Your task to perform on an android device: Go to location settings Image 0: 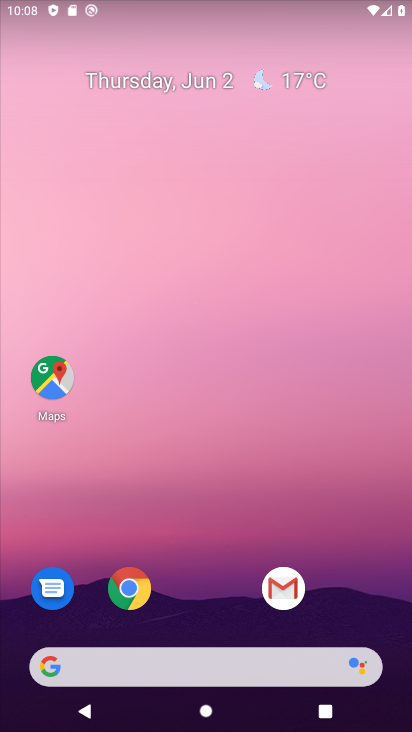
Step 0: drag from (292, 644) to (352, 132)
Your task to perform on an android device: Go to location settings Image 1: 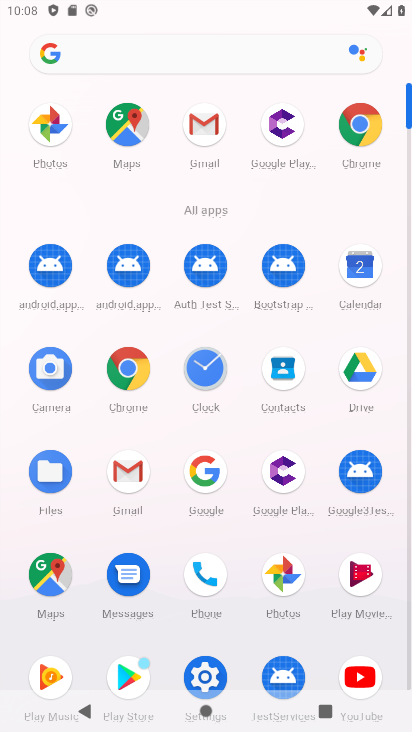
Step 1: click (198, 150)
Your task to perform on an android device: Go to location settings Image 2: 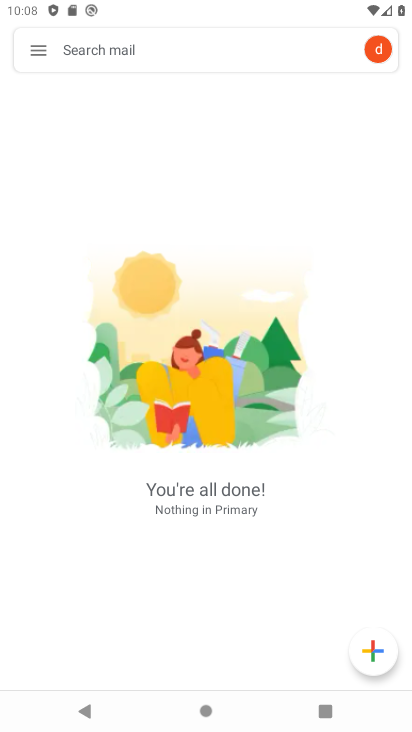
Step 2: press home button
Your task to perform on an android device: Go to location settings Image 3: 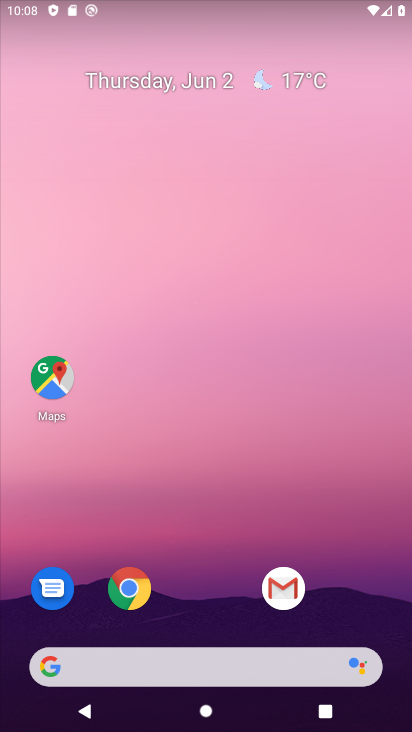
Step 3: drag from (292, 686) to (303, 95)
Your task to perform on an android device: Go to location settings Image 4: 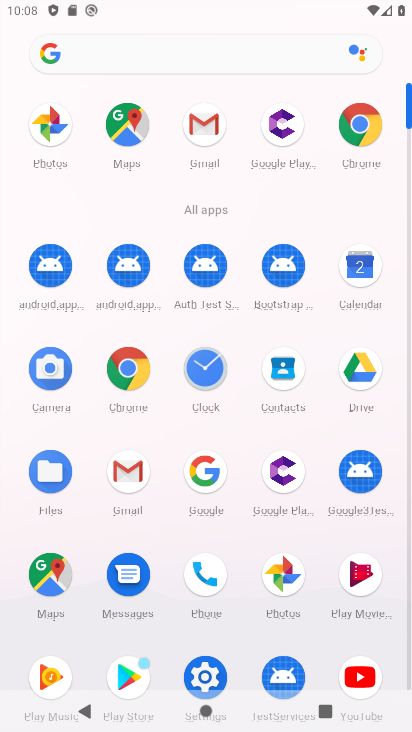
Step 4: drag from (199, 673) to (186, 563)
Your task to perform on an android device: Go to location settings Image 5: 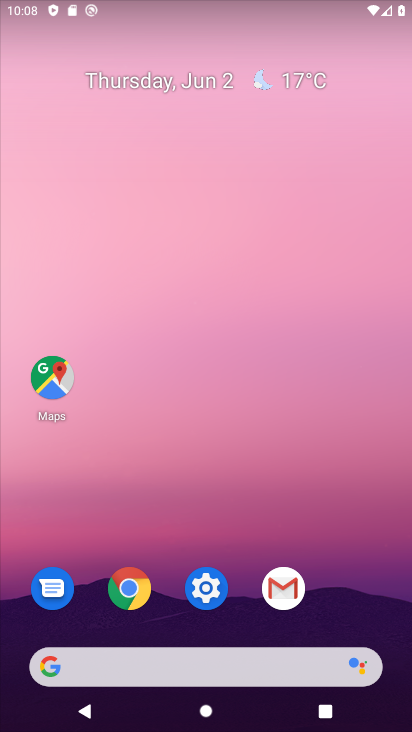
Step 5: click (199, 584)
Your task to perform on an android device: Go to location settings Image 6: 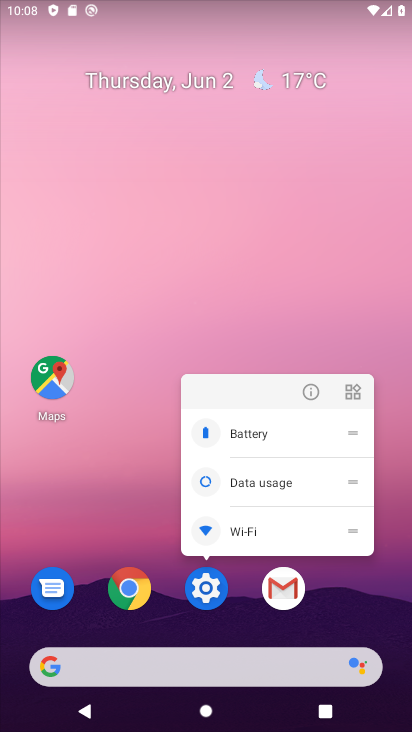
Step 6: click (202, 599)
Your task to perform on an android device: Go to location settings Image 7: 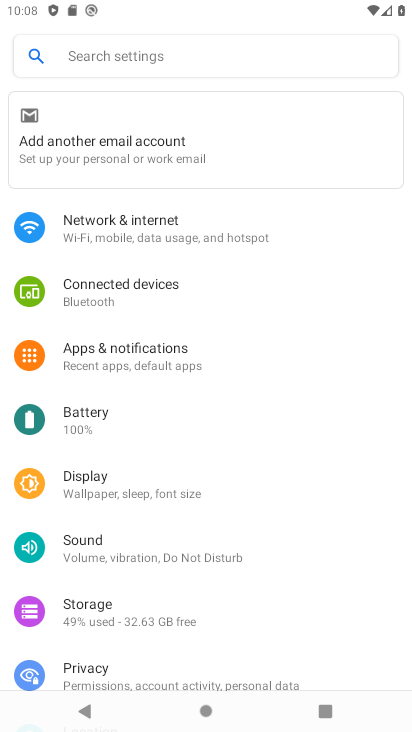
Step 7: drag from (88, 654) to (144, 568)
Your task to perform on an android device: Go to location settings Image 8: 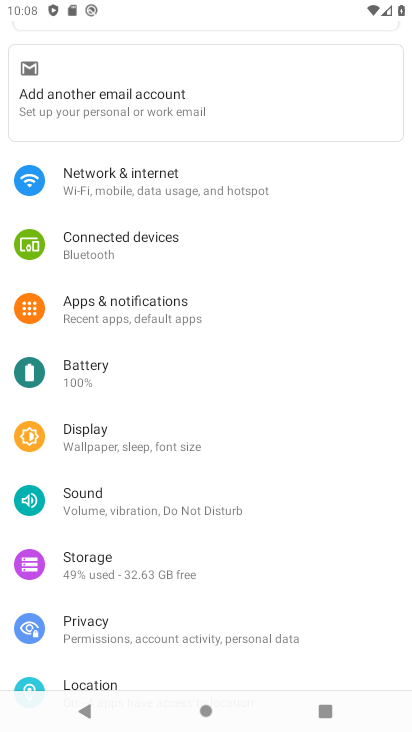
Step 8: click (84, 684)
Your task to perform on an android device: Go to location settings Image 9: 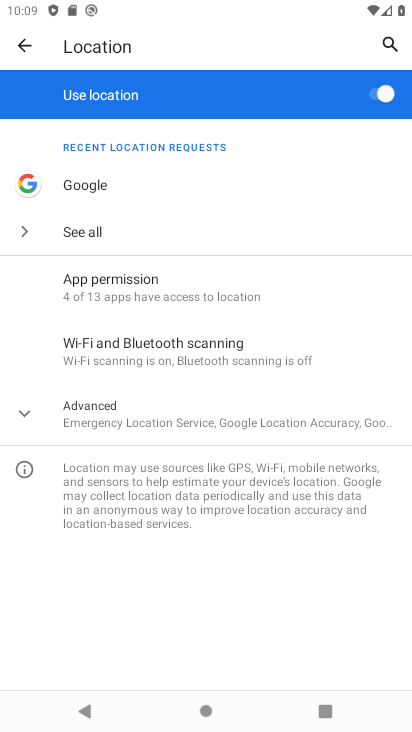
Step 9: click (57, 427)
Your task to perform on an android device: Go to location settings Image 10: 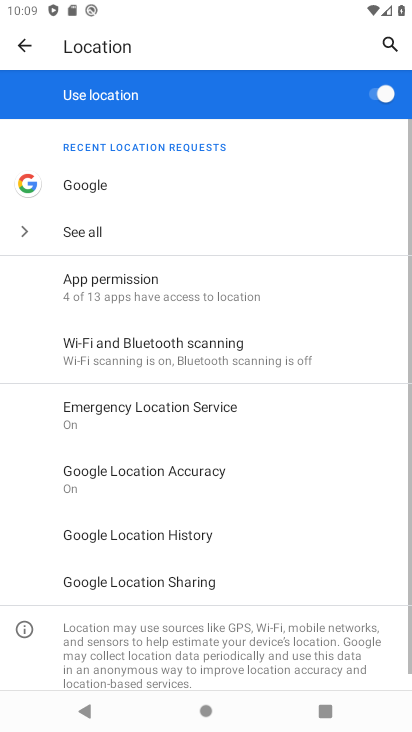
Step 10: task complete